Your task to perform on an android device: turn notification dots off Image 0: 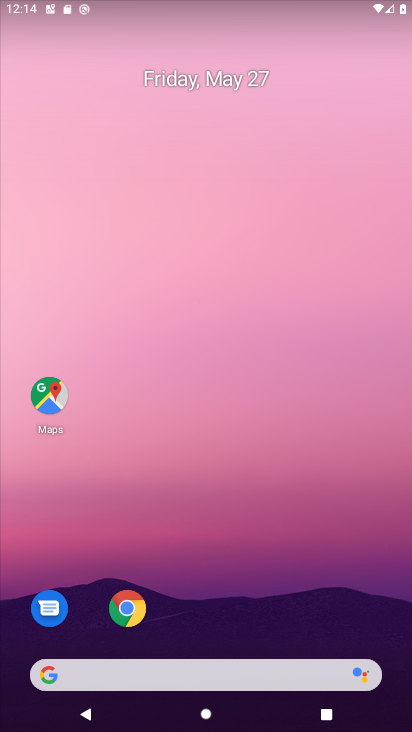
Step 0: drag from (389, 684) to (338, 157)
Your task to perform on an android device: turn notification dots off Image 1: 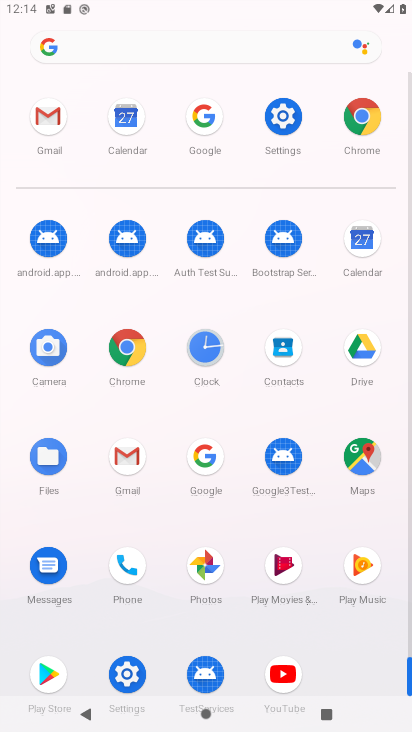
Step 1: click (274, 116)
Your task to perform on an android device: turn notification dots off Image 2: 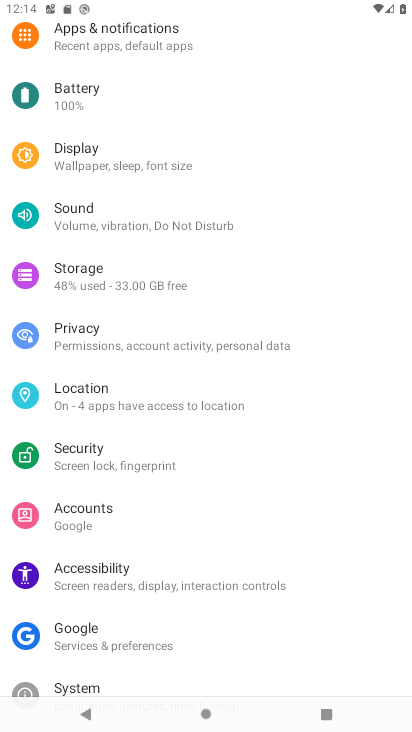
Step 2: click (166, 34)
Your task to perform on an android device: turn notification dots off Image 3: 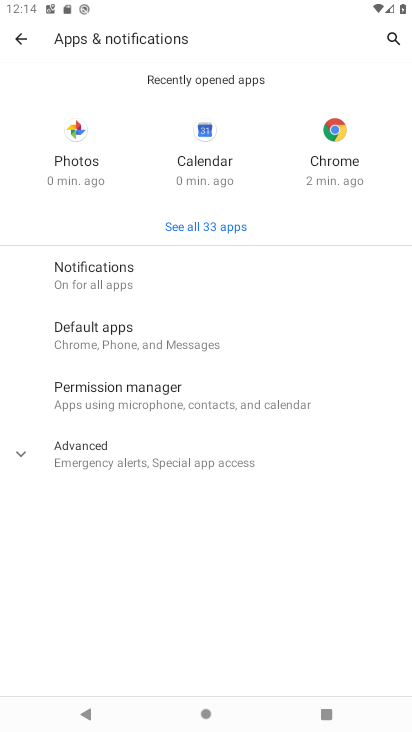
Step 3: click (88, 270)
Your task to perform on an android device: turn notification dots off Image 4: 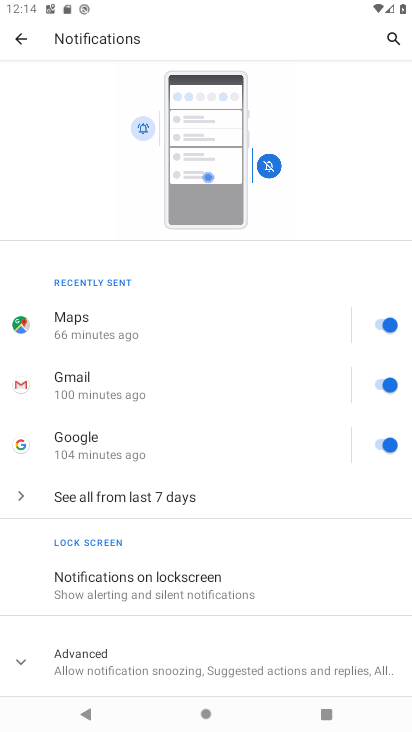
Step 4: drag from (283, 579) to (280, 81)
Your task to perform on an android device: turn notification dots off Image 5: 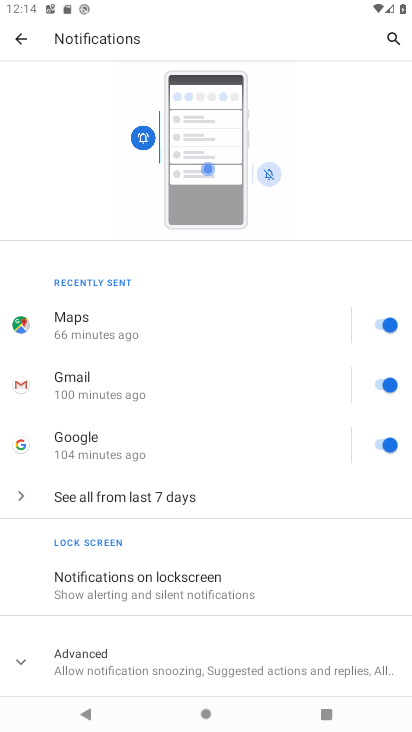
Step 5: click (16, 662)
Your task to perform on an android device: turn notification dots off Image 6: 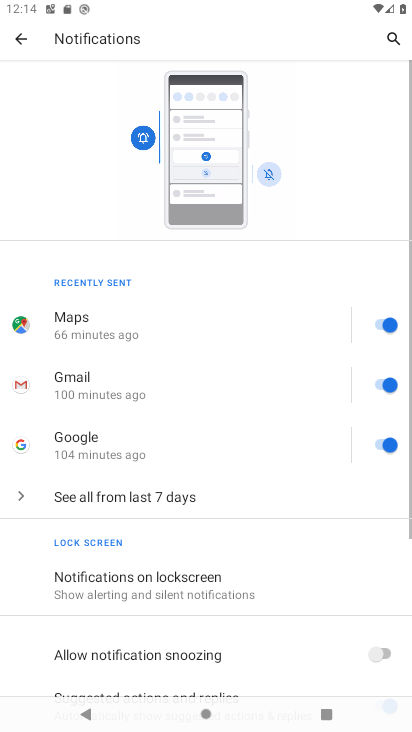
Step 6: drag from (267, 659) to (256, 300)
Your task to perform on an android device: turn notification dots off Image 7: 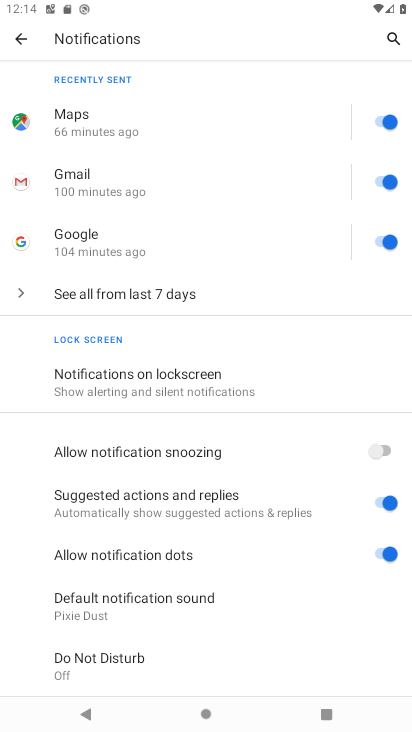
Step 7: drag from (283, 467) to (289, 317)
Your task to perform on an android device: turn notification dots off Image 8: 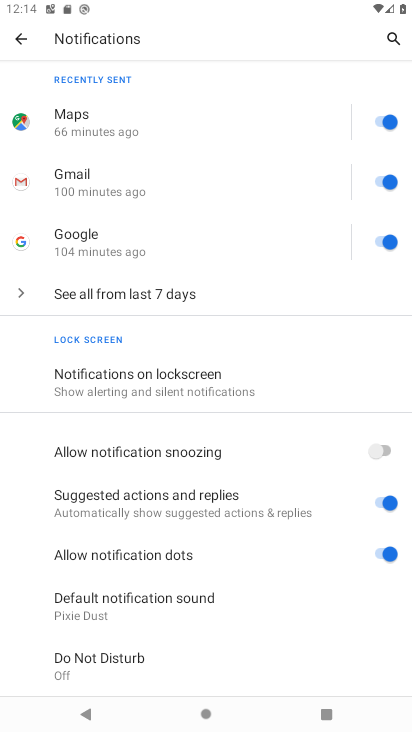
Step 8: click (374, 547)
Your task to perform on an android device: turn notification dots off Image 9: 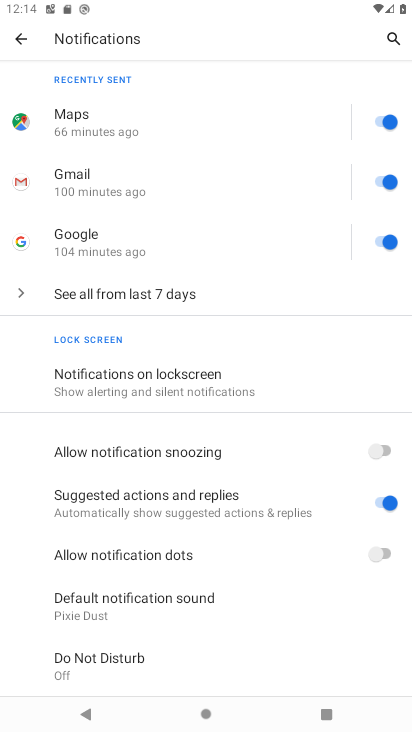
Step 9: task complete